Your task to perform on an android device: turn pop-ups on in chrome Image 0: 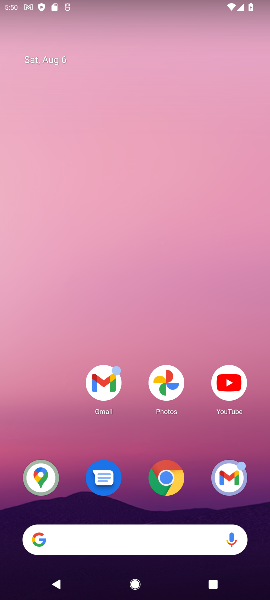
Step 0: click (177, 473)
Your task to perform on an android device: turn pop-ups on in chrome Image 1: 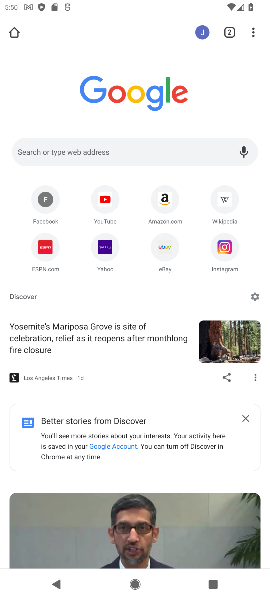
Step 1: drag from (255, 27) to (156, 314)
Your task to perform on an android device: turn pop-ups on in chrome Image 2: 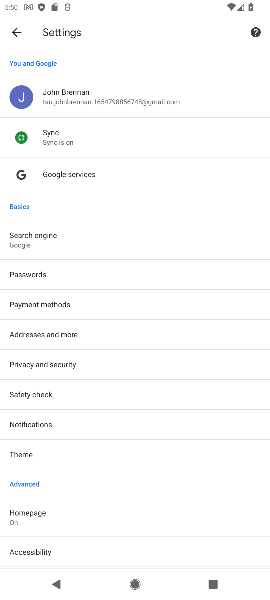
Step 2: drag from (154, 465) to (134, 123)
Your task to perform on an android device: turn pop-ups on in chrome Image 3: 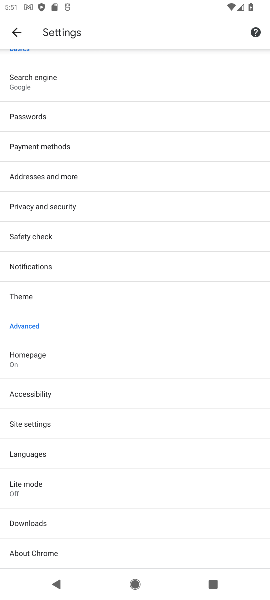
Step 3: click (27, 430)
Your task to perform on an android device: turn pop-ups on in chrome Image 4: 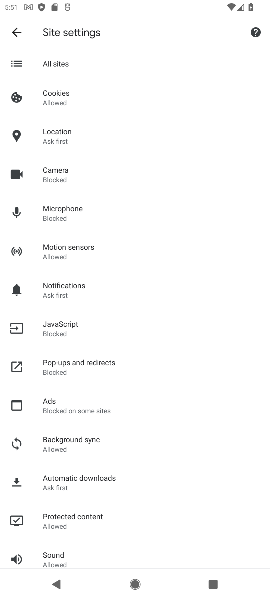
Step 4: click (69, 368)
Your task to perform on an android device: turn pop-ups on in chrome Image 5: 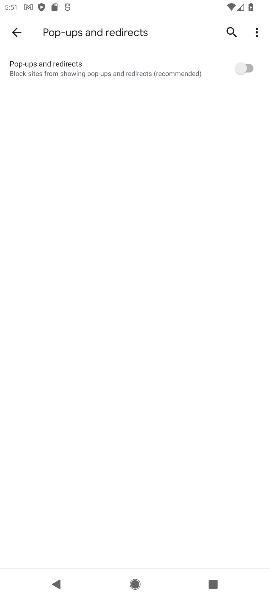
Step 5: click (247, 68)
Your task to perform on an android device: turn pop-ups on in chrome Image 6: 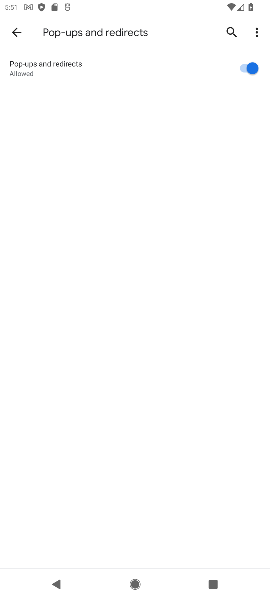
Step 6: task complete